Your task to perform on an android device: Find coffee shops on Maps Image 0: 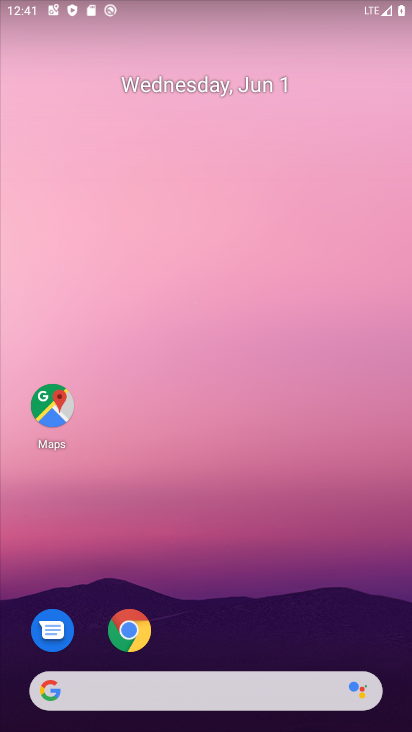
Step 0: click (52, 402)
Your task to perform on an android device: Find coffee shops on Maps Image 1: 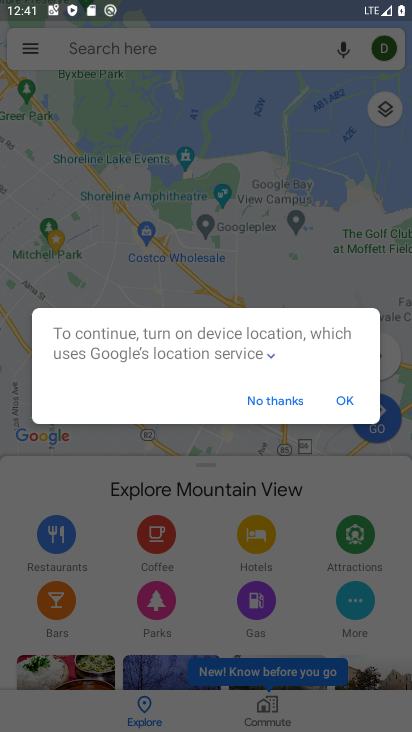
Step 1: click (266, 398)
Your task to perform on an android device: Find coffee shops on Maps Image 2: 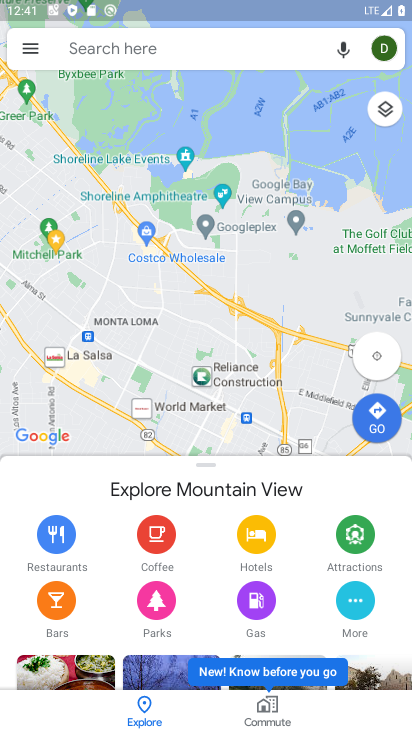
Step 2: click (130, 59)
Your task to perform on an android device: Find coffee shops on Maps Image 3: 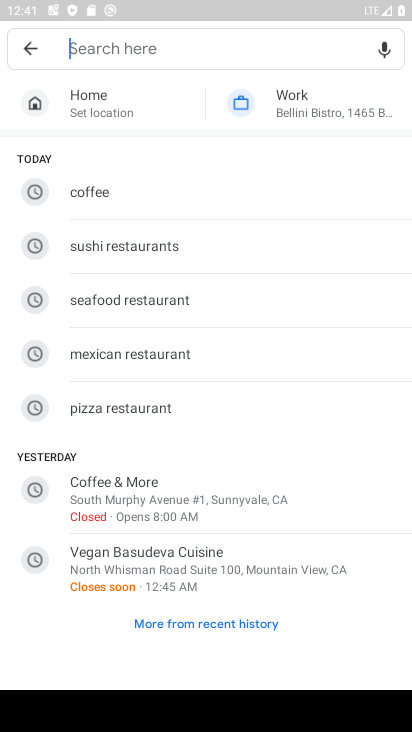
Step 3: click (121, 41)
Your task to perform on an android device: Find coffee shops on Maps Image 4: 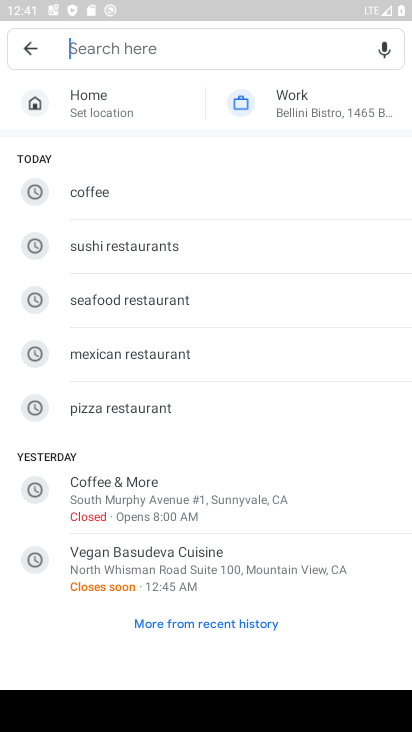
Step 4: type " coffee "
Your task to perform on an android device: Find coffee shops on Maps Image 5: 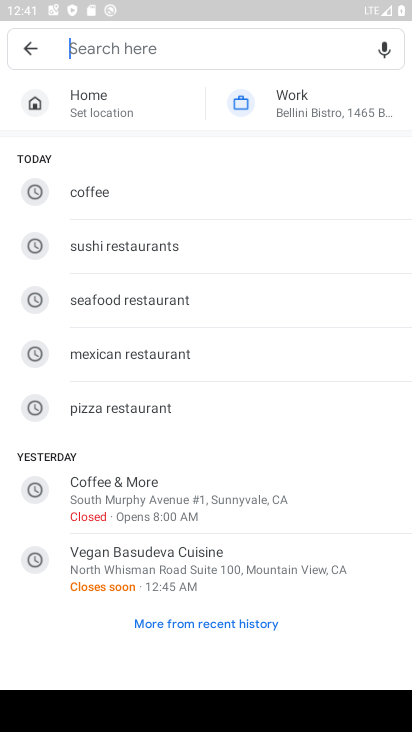
Step 5: click (204, 43)
Your task to perform on an android device: Find coffee shops on Maps Image 6: 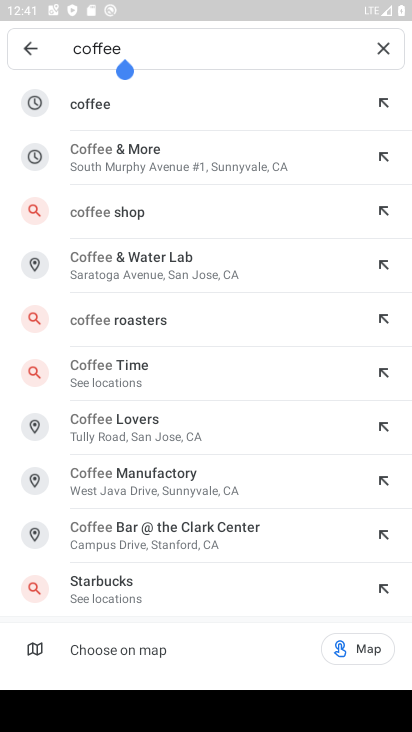
Step 6: click (100, 105)
Your task to perform on an android device: Find coffee shops on Maps Image 7: 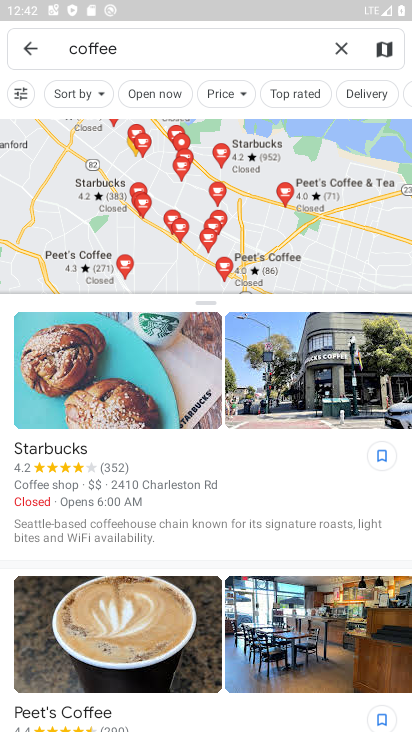
Step 7: task complete